Your task to perform on an android device: Go to settings Image 0: 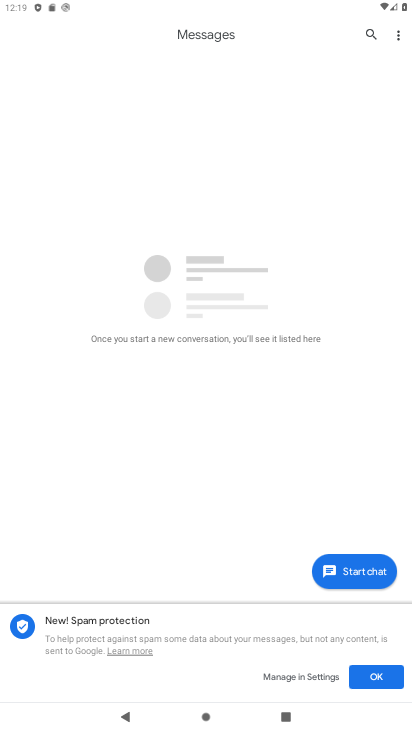
Step 0: press home button
Your task to perform on an android device: Go to settings Image 1: 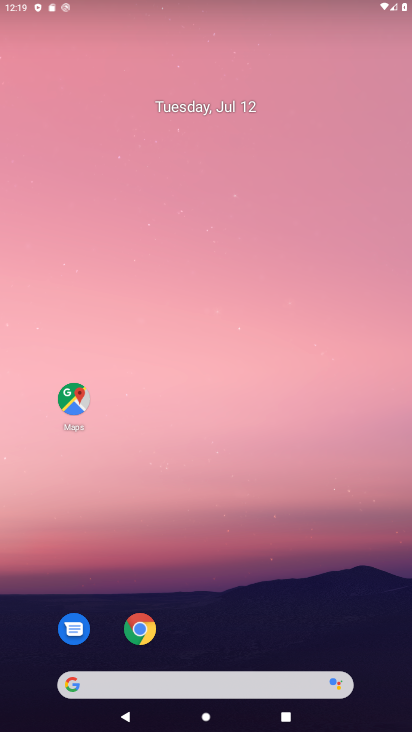
Step 1: drag from (287, 670) to (357, 20)
Your task to perform on an android device: Go to settings Image 2: 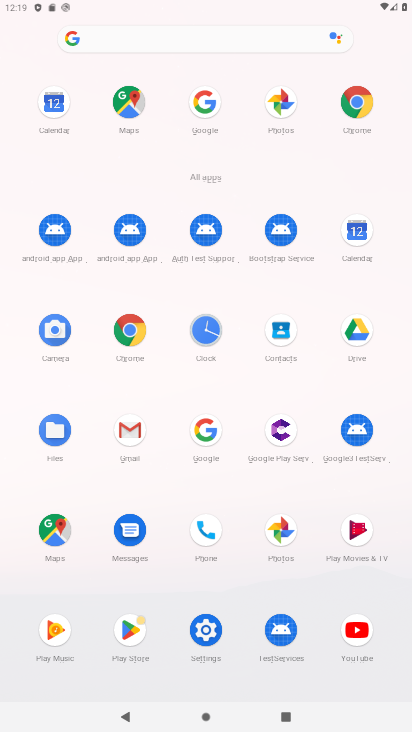
Step 2: click (224, 618)
Your task to perform on an android device: Go to settings Image 3: 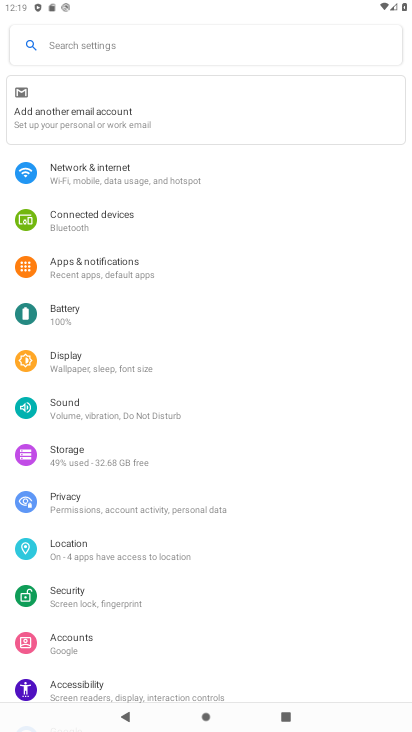
Step 3: task complete